Your task to perform on an android device: Open calendar and show me the fourth week of next month Image 0: 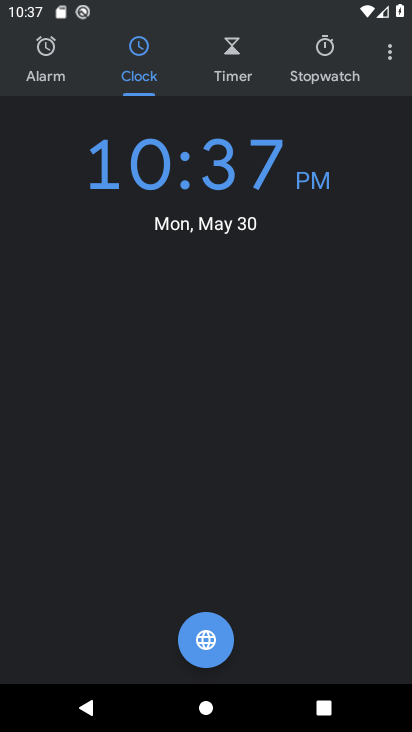
Step 0: press home button
Your task to perform on an android device: Open calendar and show me the fourth week of next month Image 1: 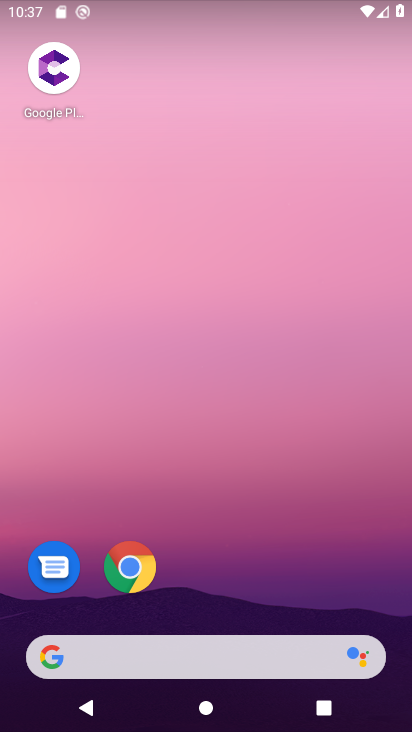
Step 1: drag from (231, 633) to (275, 228)
Your task to perform on an android device: Open calendar and show me the fourth week of next month Image 2: 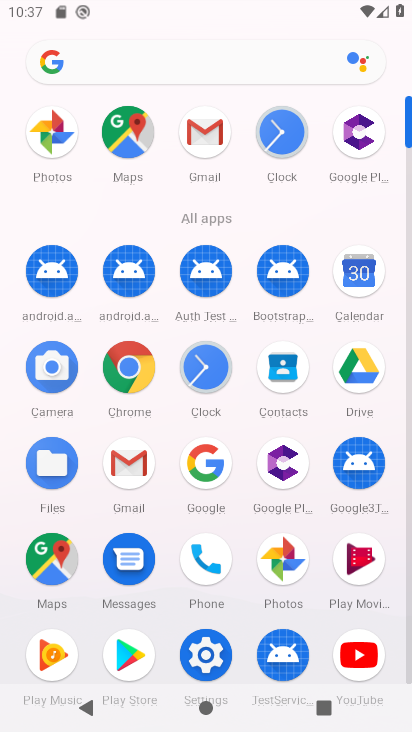
Step 2: click (355, 281)
Your task to perform on an android device: Open calendar and show me the fourth week of next month Image 3: 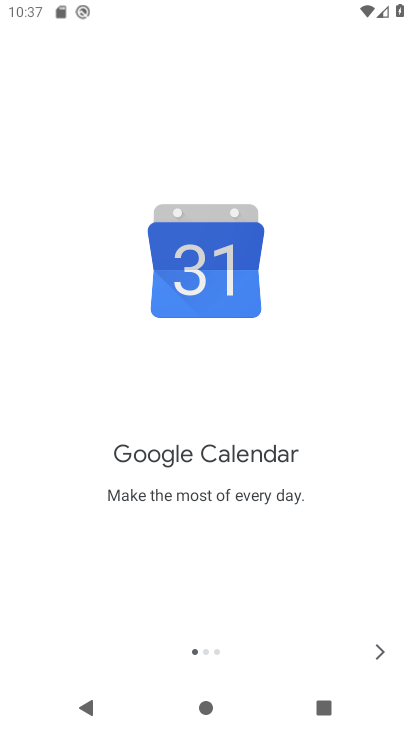
Step 3: click (378, 653)
Your task to perform on an android device: Open calendar and show me the fourth week of next month Image 4: 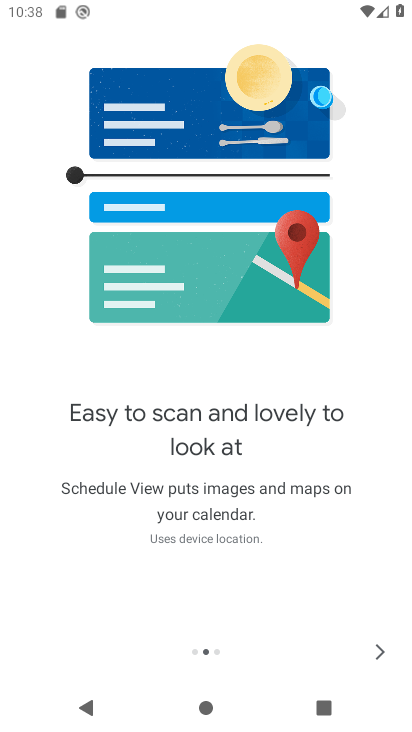
Step 4: click (378, 653)
Your task to perform on an android device: Open calendar and show me the fourth week of next month Image 5: 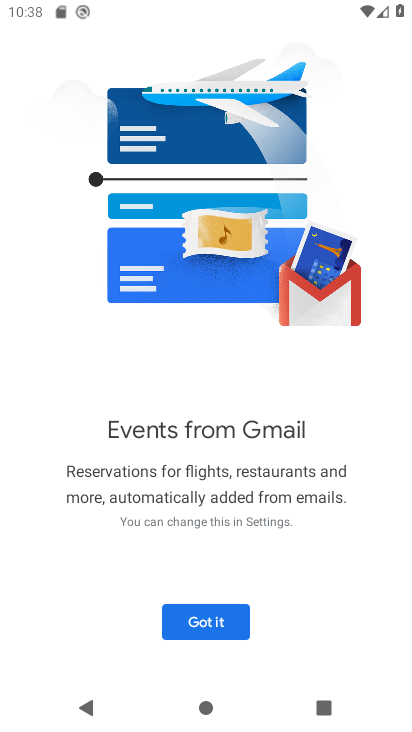
Step 5: click (230, 626)
Your task to perform on an android device: Open calendar and show me the fourth week of next month Image 6: 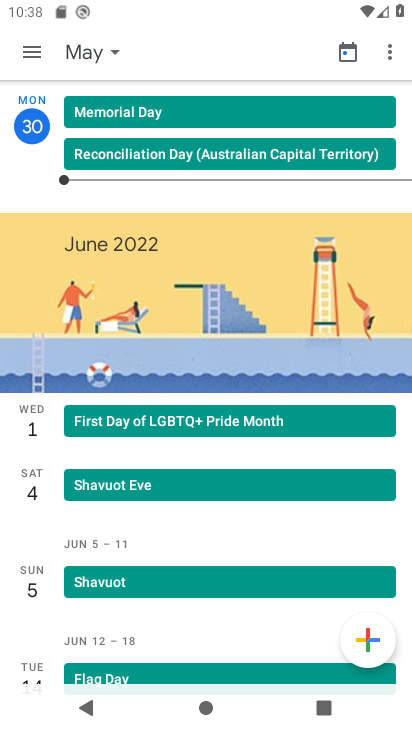
Step 6: click (93, 51)
Your task to perform on an android device: Open calendar and show me the fourth week of next month Image 7: 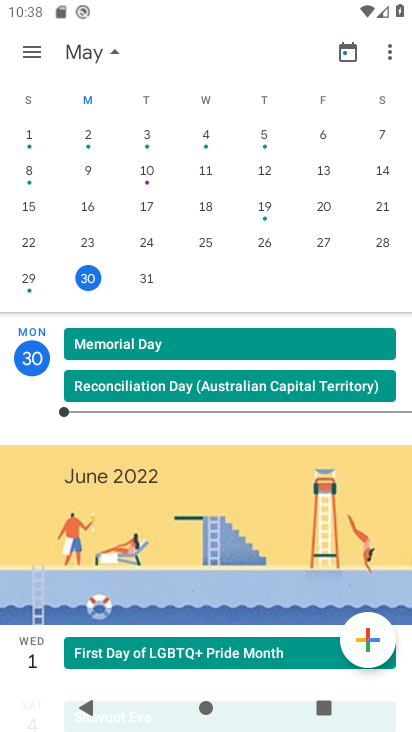
Step 7: drag from (378, 222) to (0, 143)
Your task to perform on an android device: Open calendar and show me the fourth week of next month Image 8: 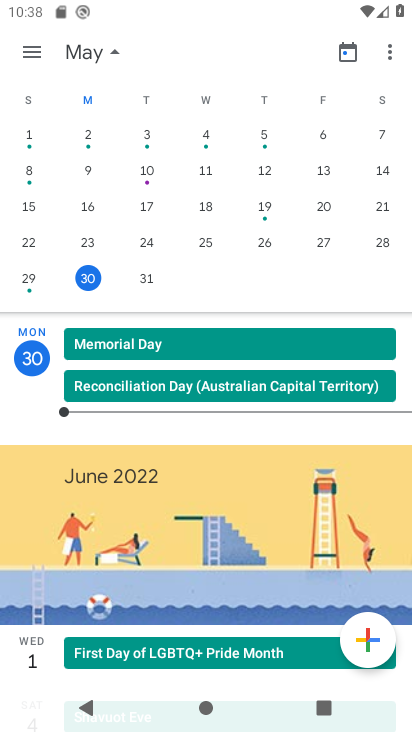
Step 8: drag from (319, 247) to (12, 246)
Your task to perform on an android device: Open calendar and show me the fourth week of next month Image 9: 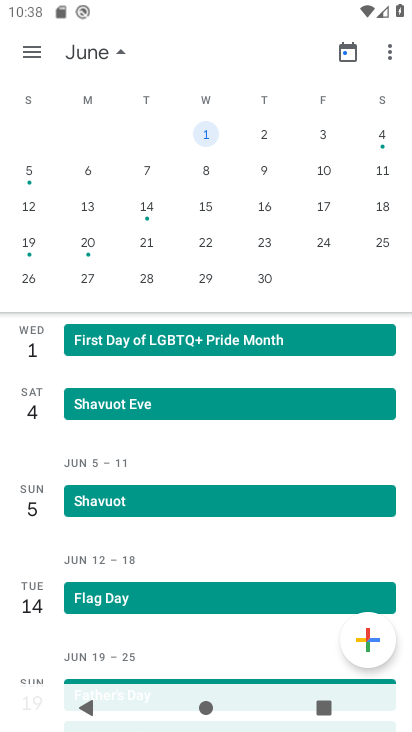
Step 9: click (27, 244)
Your task to perform on an android device: Open calendar and show me the fourth week of next month Image 10: 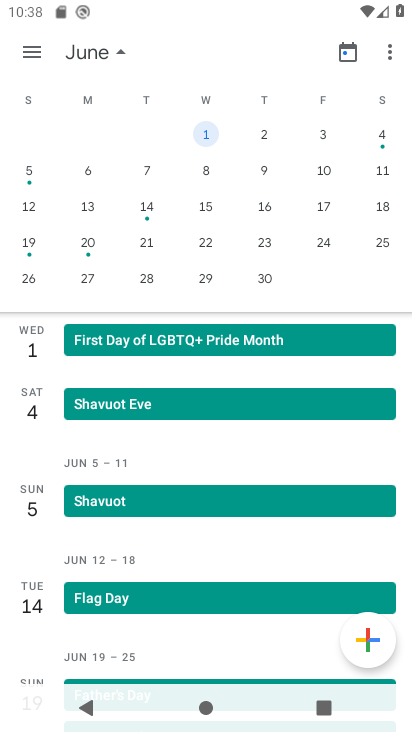
Step 10: click (33, 240)
Your task to perform on an android device: Open calendar and show me the fourth week of next month Image 11: 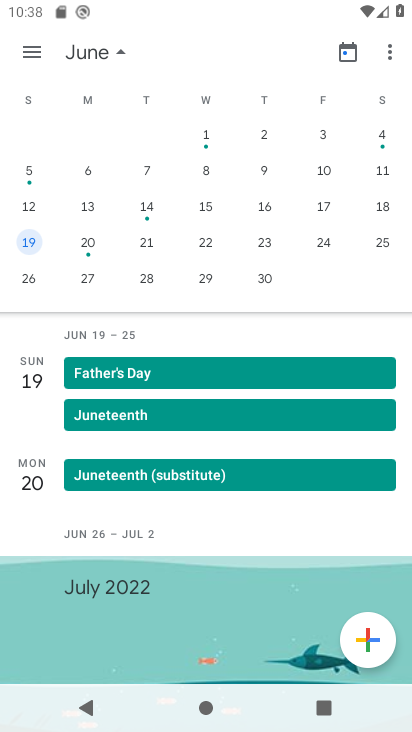
Step 11: task complete